Your task to perform on an android device: View the shopping cart on walmart. Image 0: 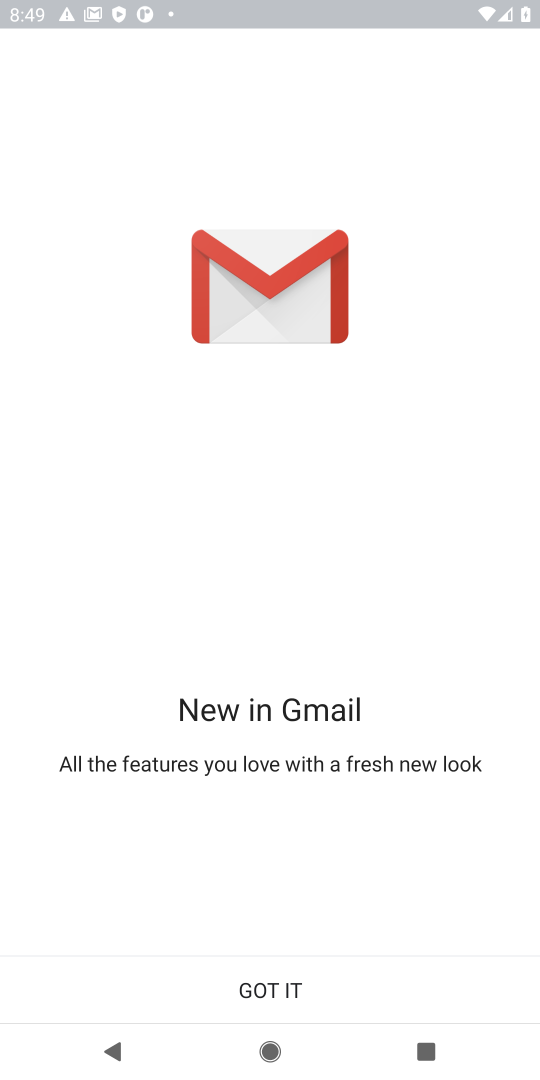
Step 0: press home button
Your task to perform on an android device: View the shopping cart on walmart. Image 1: 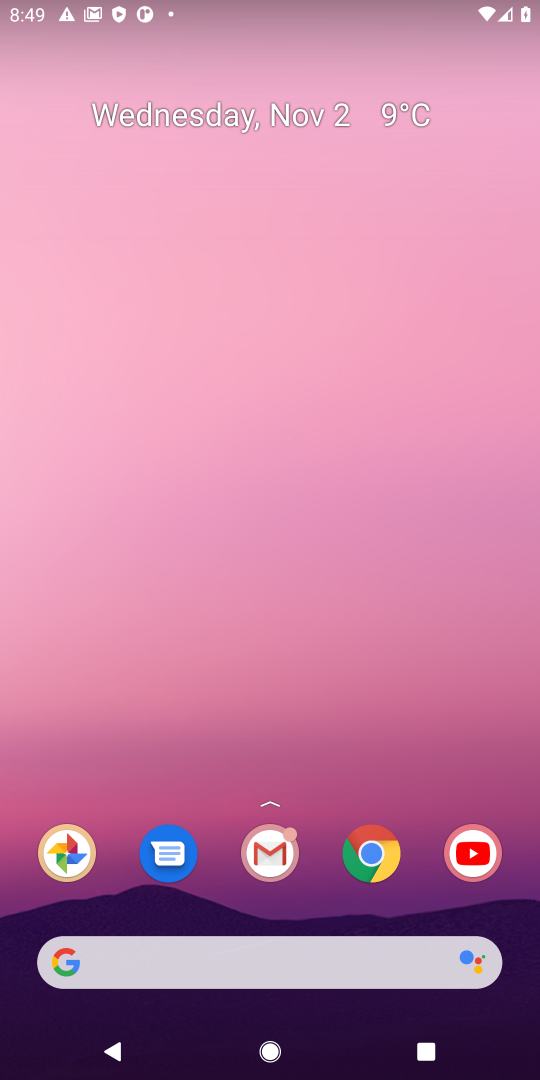
Step 1: click (370, 857)
Your task to perform on an android device: View the shopping cart on walmart. Image 2: 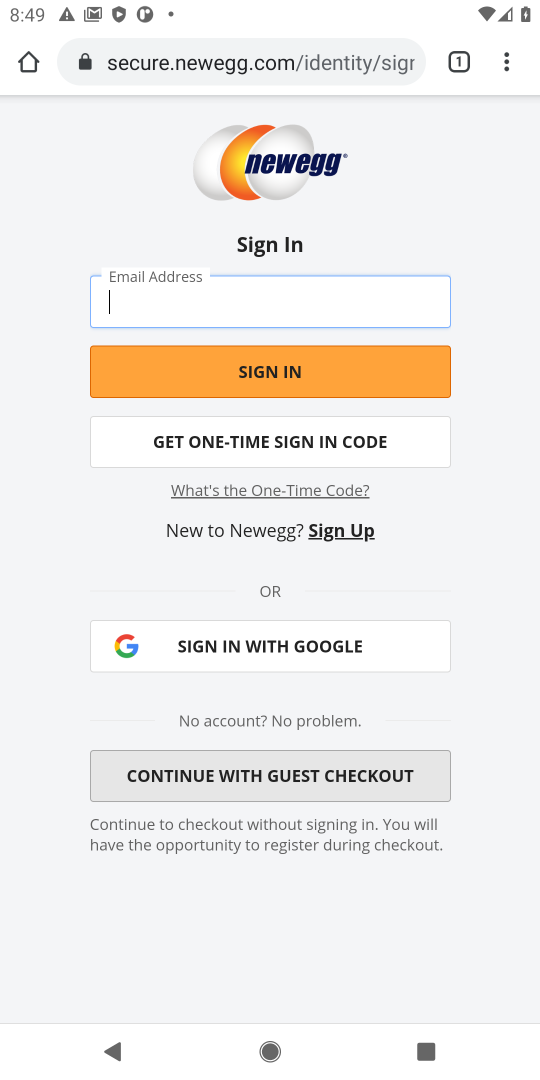
Step 2: click (323, 59)
Your task to perform on an android device: View the shopping cart on walmart. Image 3: 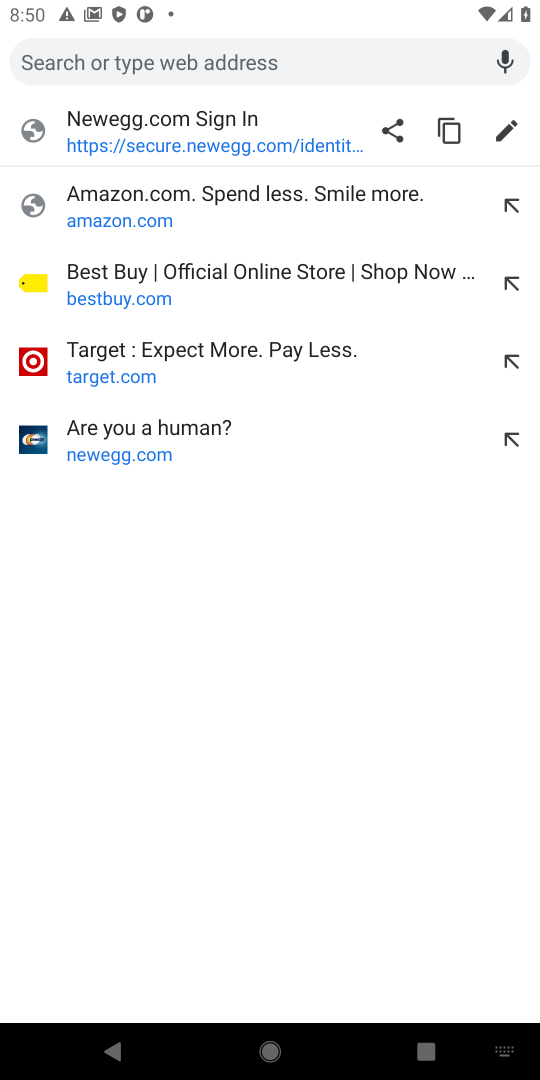
Step 3: type "walmart"
Your task to perform on an android device: View the shopping cart on walmart. Image 4: 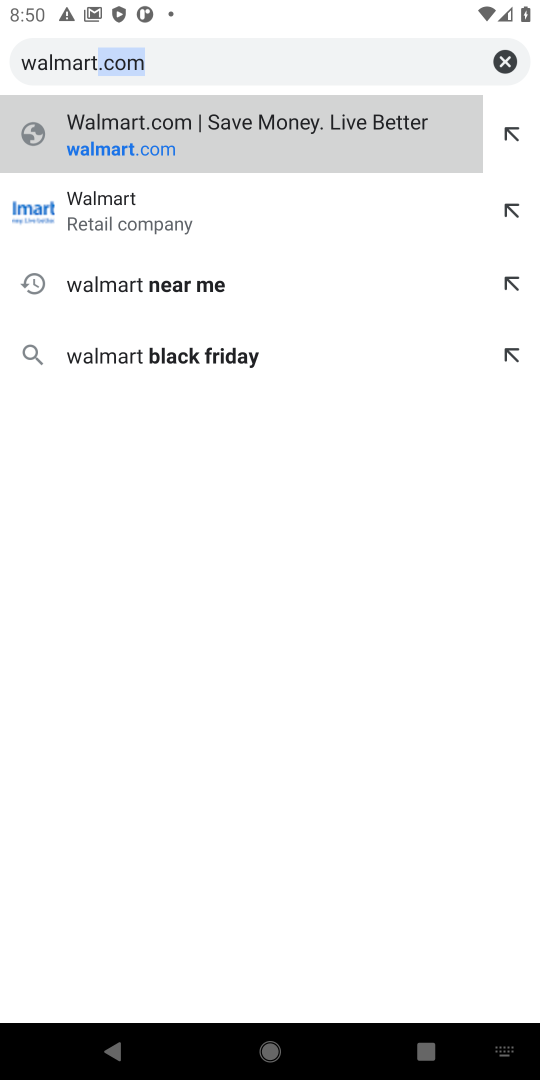
Step 4: press enter
Your task to perform on an android device: View the shopping cart on walmart. Image 5: 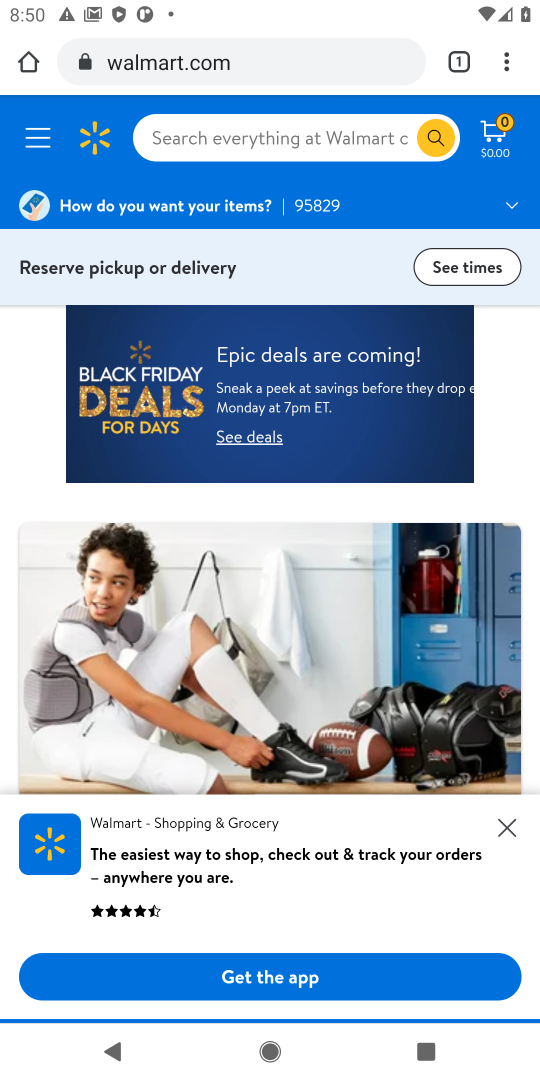
Step 5: click (502, 125)
Your task to perform on an android device: View the shopping cart on walmart. Image 6: 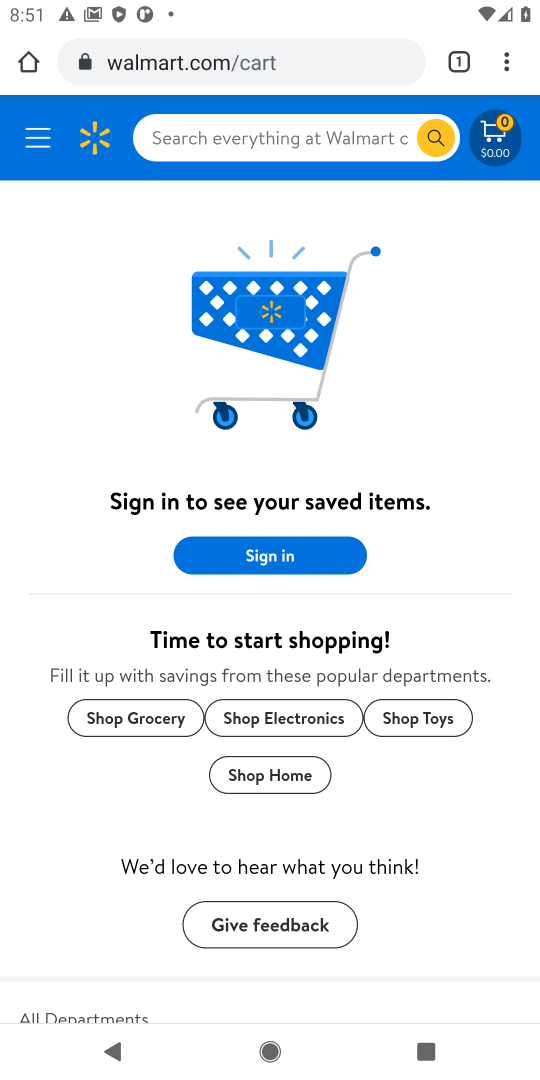
Step 6: task complete